Your task to perform on an android device: Open maps Image 0: 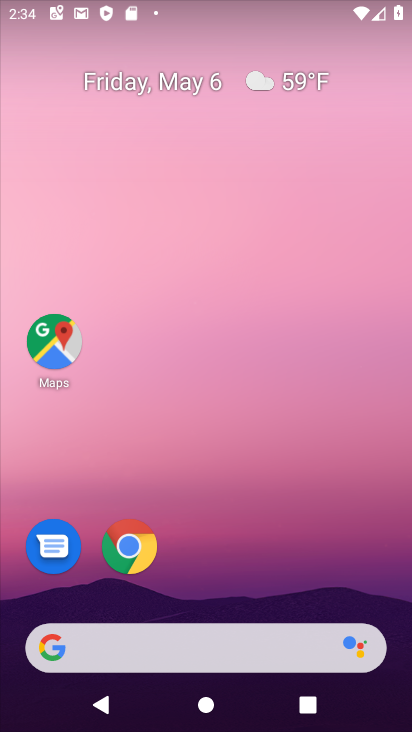
Step 0: click (53, 349)
Your task to perform on an android device: Open maps Image 1: 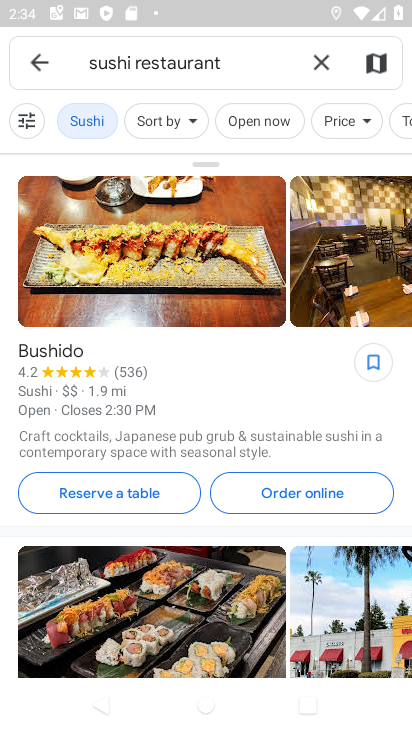
Step 1: task complete